Your task to perform on an android device: toggle priority inbox in the gmail app Image 0: 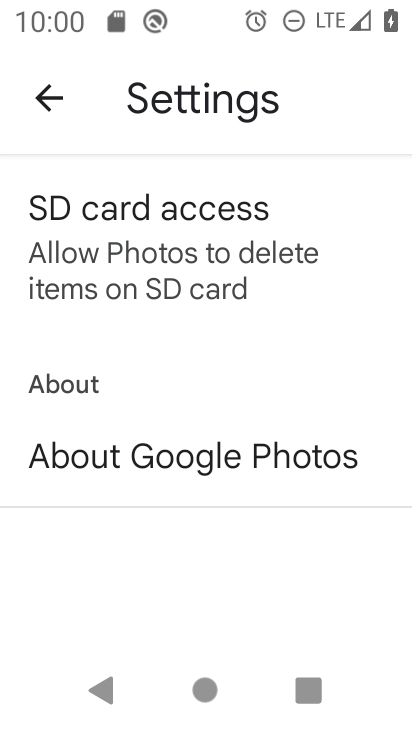
Step 0: press home button
Your task to perform on an android device: toggle priority inbox in the gmail app Image 1: 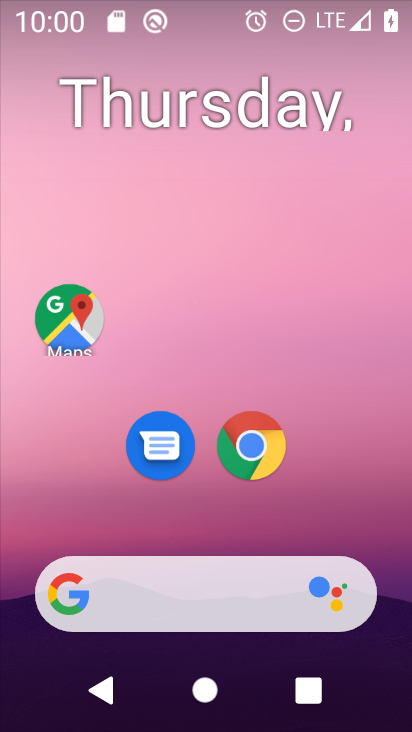
Step 1: drag from (388, 633) to (375, 113)
Your task to perform on an android device: toggle priority inbox in the gmail app Image 2: 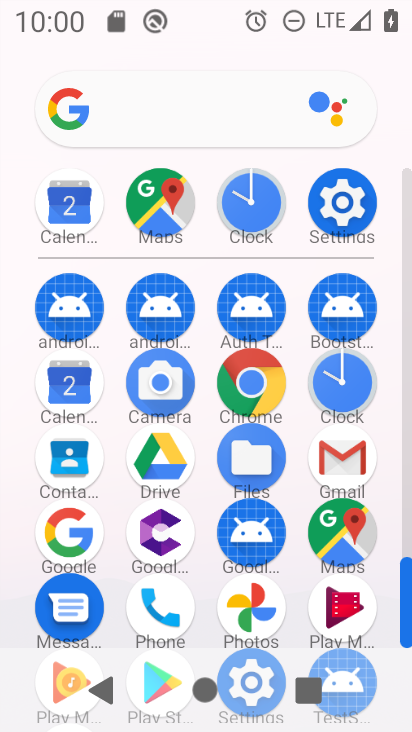
Step 2: click (339, 454)
Your task to perform on an android device: toggle priority inbox in the gmail app Image 3: 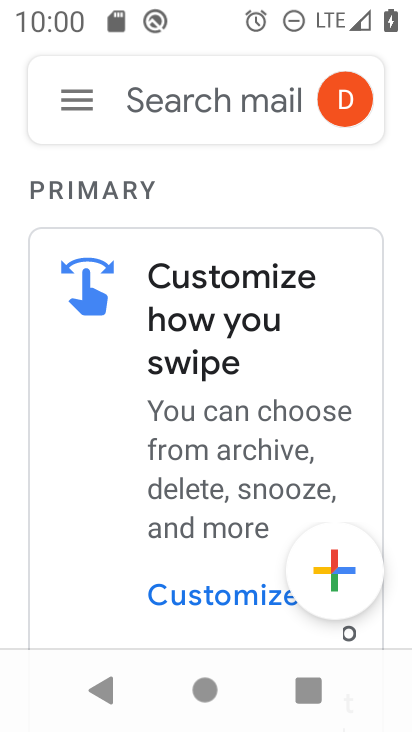
Step 3: click (89, 113)
Your task to perform on an android device: toggle priority inbox in the gmail app Image 4: 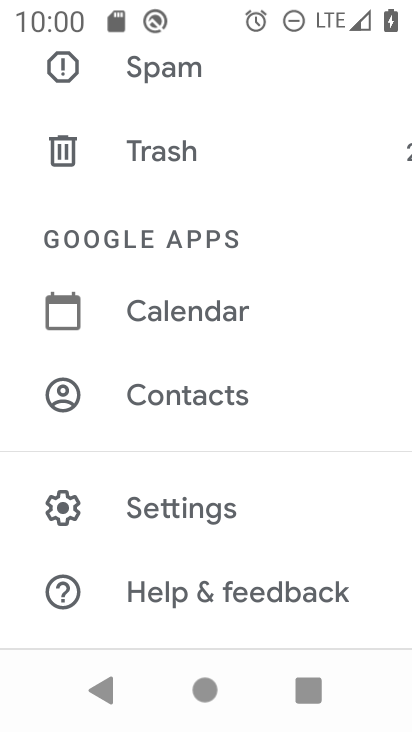
Step 4: click (194, 493)
Your task to perform on an android device: toggle priority inbox in the gmail app Image 5: 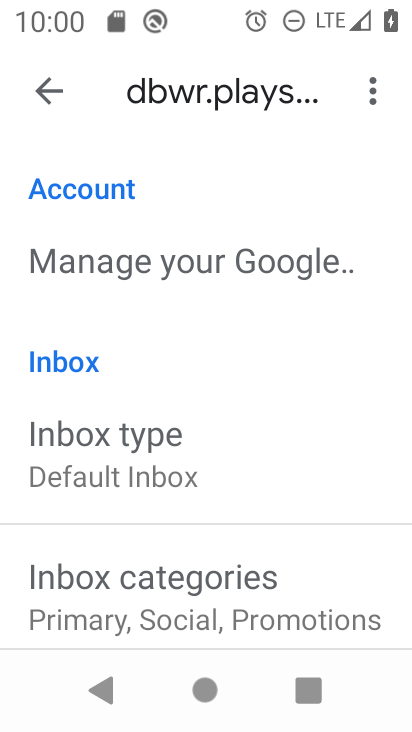
Step 5: click (216, 470)
Your task to perform on an android device: toggle priority inbox in the gmail app Image 6: 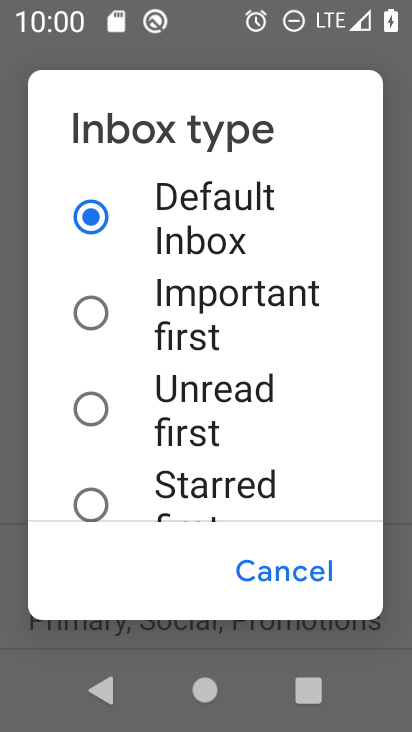
Step 6: task complete